Your task to perform on an android device: check out phone information Image 0: 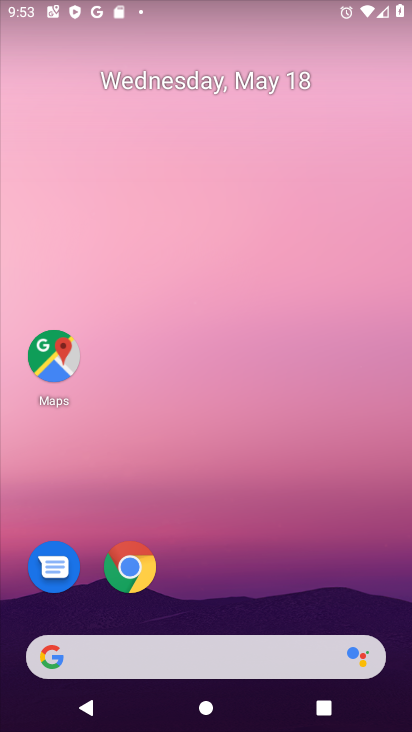
Step 0: drag from (211, 652) to (69, 33)
Your task to perform on an android device: check out phone information Image 1: 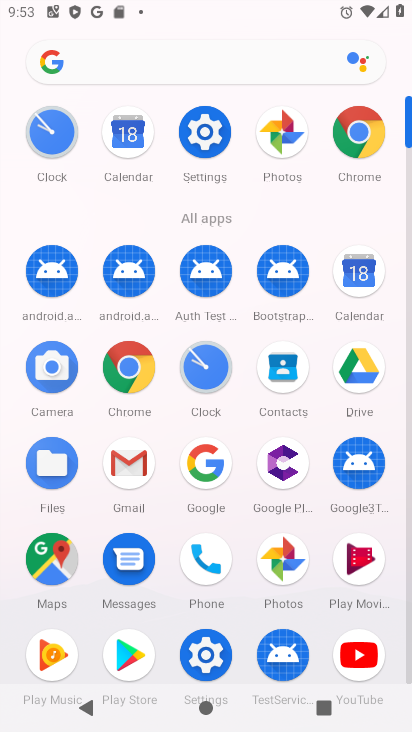
Step 1: click (195, 143)
Your task to perform on an android device: check out phone information Image 2: 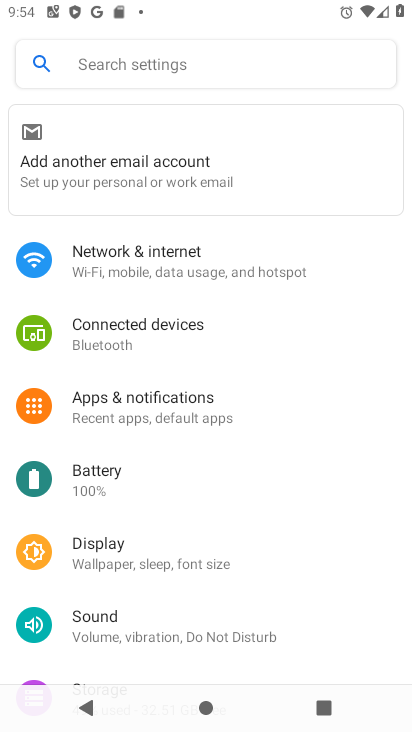
Step 2: drag from (150, 639) to (148, 45)
Your task to perform on an android device: check out phone information Image 3: 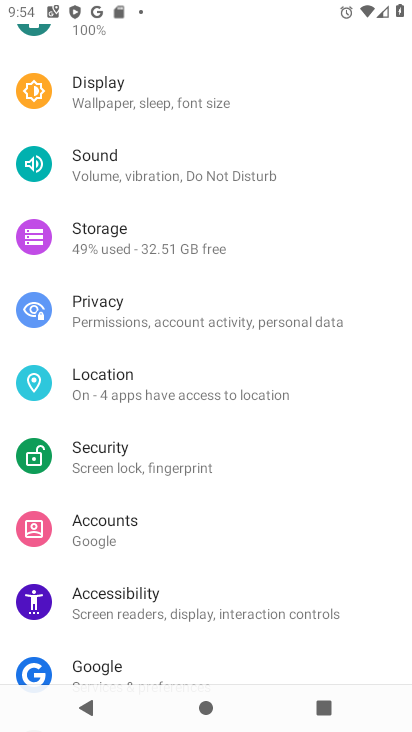
Step 3: drag from (158, 548) to (132, 231)
Your task to perform on an android device: check out phone information Image 4: 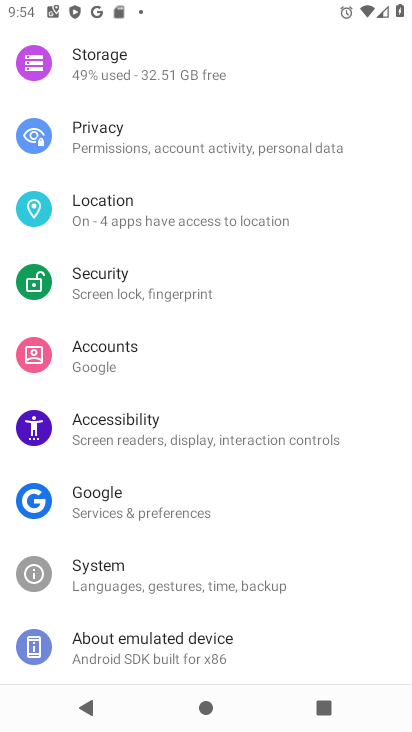
Step 4: click (135, 651)
Your task to perform on an android device: check out phone information Image 5: 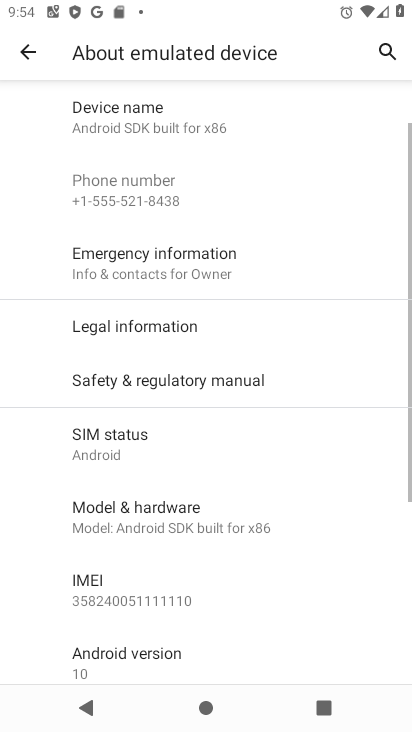
Step 5: task complete